Your task to perform on an android device: When is my next meeting? Image 0: 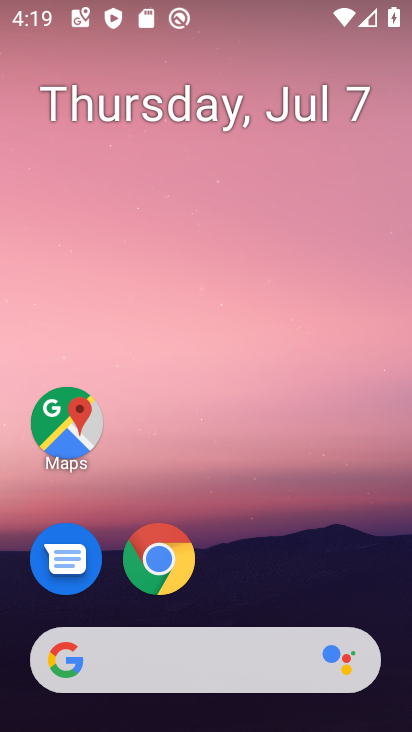
Step 0: drag from (218, 598) to (288, 16)
Your task to perform on an android device: When is my next meeting? Image 1: 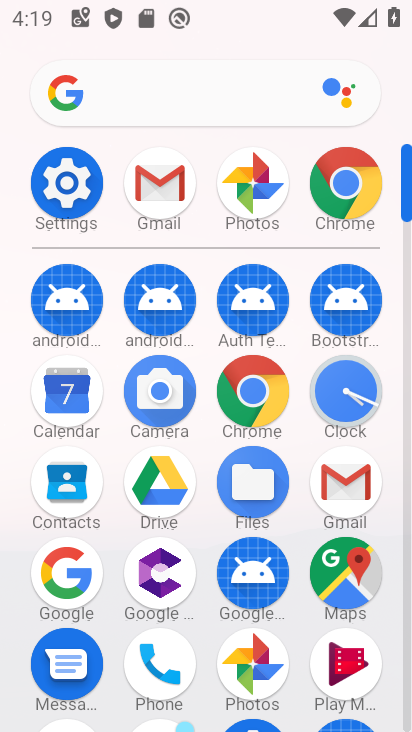
Step 1: click (64, 398)
Your task to perform on an android device: When is my next meeting? Image 2: 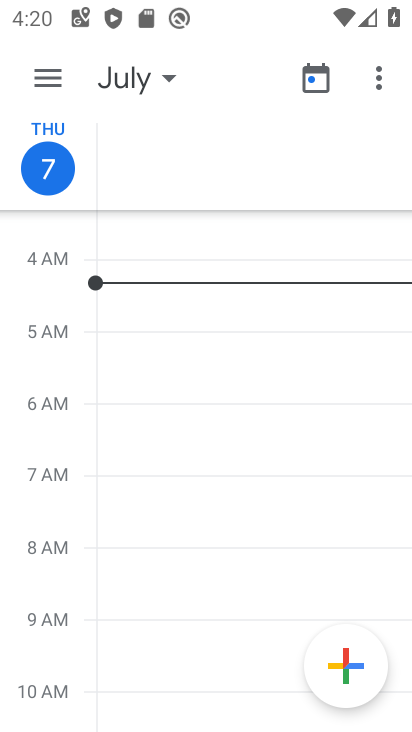
Step 2: click (47, 65)
Your task to perform on an android device: When is my next meeting? Image 3: 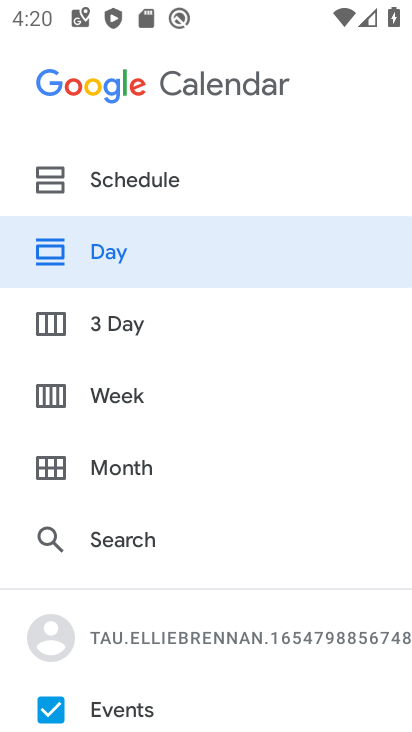
Step 3: click (127, 177)
Your task to perform on an android device: When is my next meeting? Image 4: 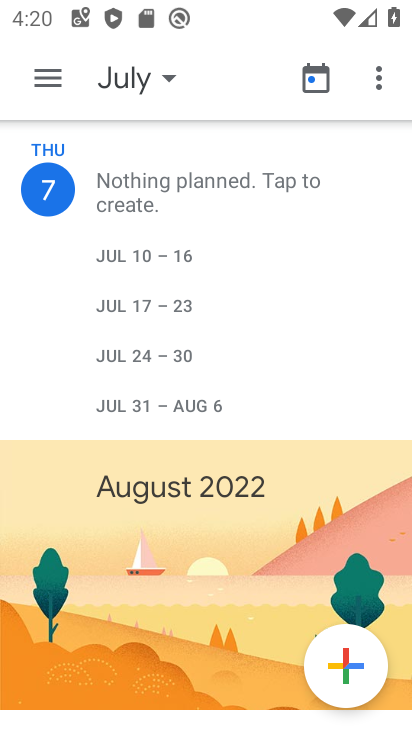
Step 4: task complete